Your task to perform on an android device: change the clock style Image 0: 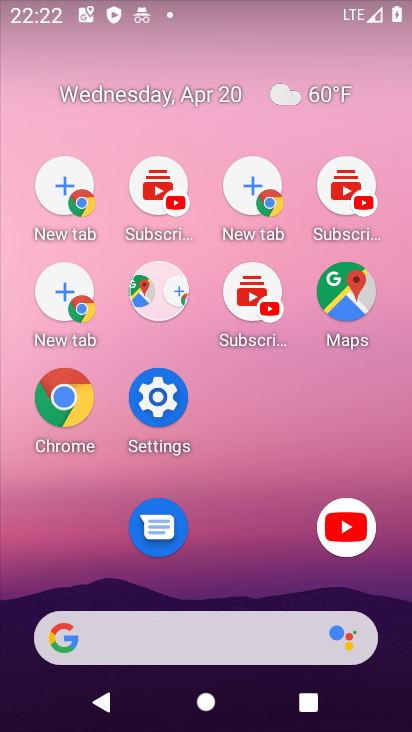
Step 0: click (280, 8)
Your task to perform on an android device: change the clock style Image 1: 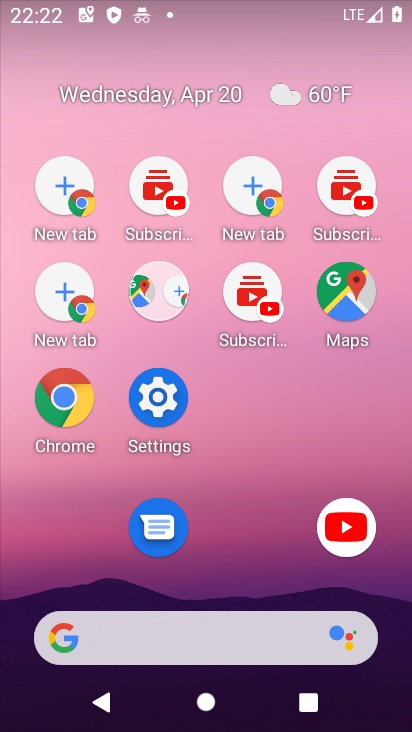
Step 1: drag from (224, 335) to (200, 90)
Your task to perform on an android device: change the clock style Image 2: 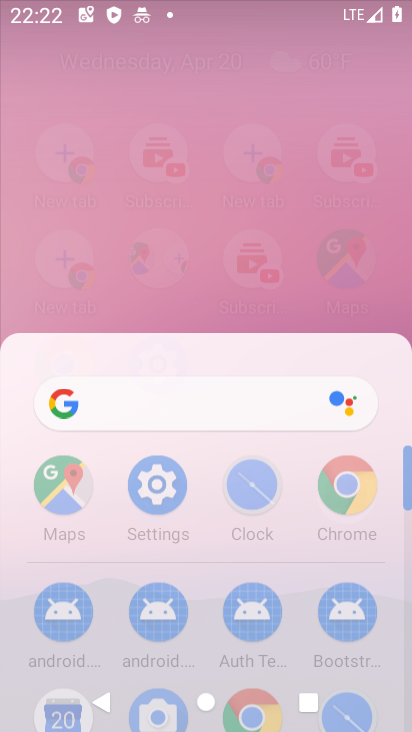
Step 2: drag from (283, 487) to (199, 87)
Your task to perform on an android device: change the clock style Image 3: 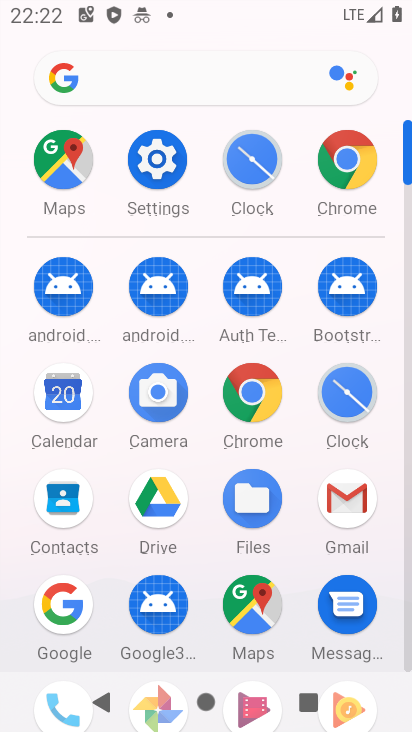
Step 3: click (247, 161)
Your task to perform on an android device: change the clock style Image 4: 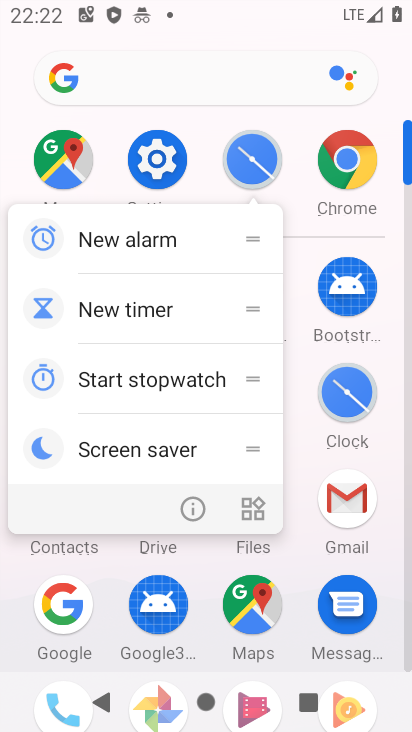
Step 4: click (247, 156)
Your task to perform on an android device: change the clock style Image 5: 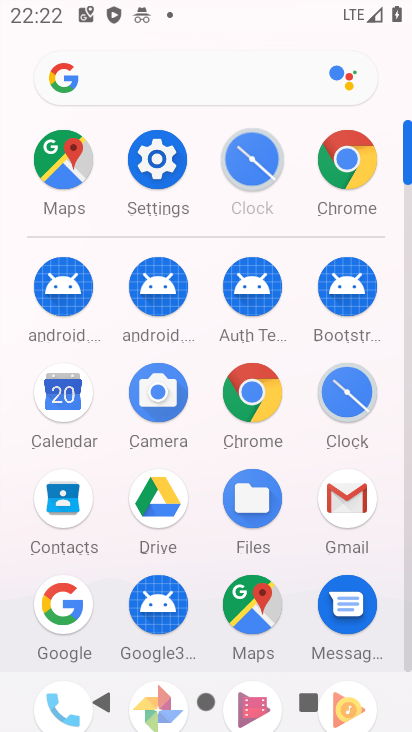
Step 5: click (247, 156)
Your task to perform on an android device: change the clock style Image 6: 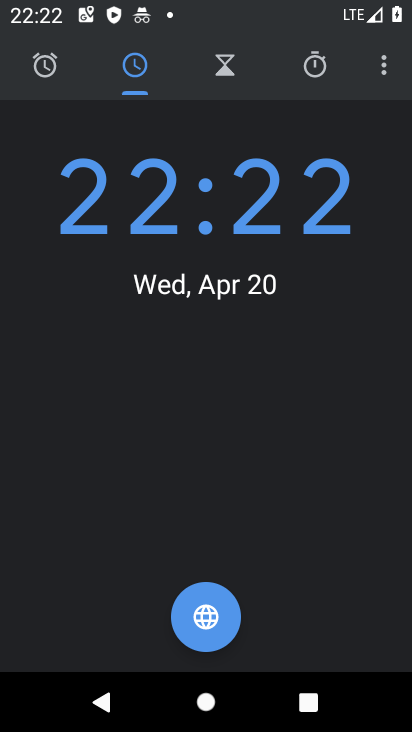
Step 6: click (247, 155)
Your task to perform on an android device: change the clock style Image 7: 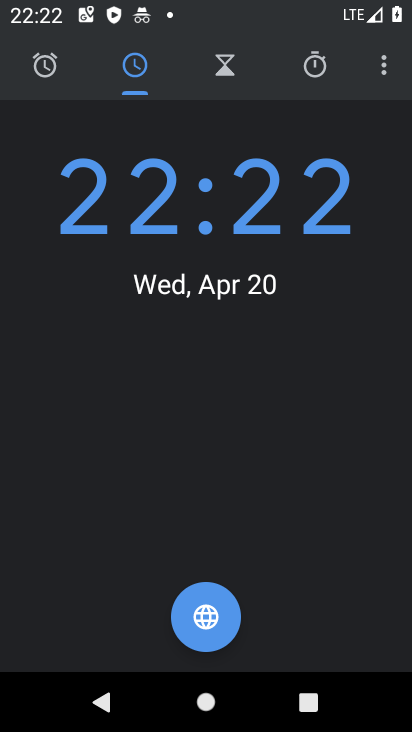
Step 7: click (247, 154)
Your task to perform on an android device: change the clock style Image 8: 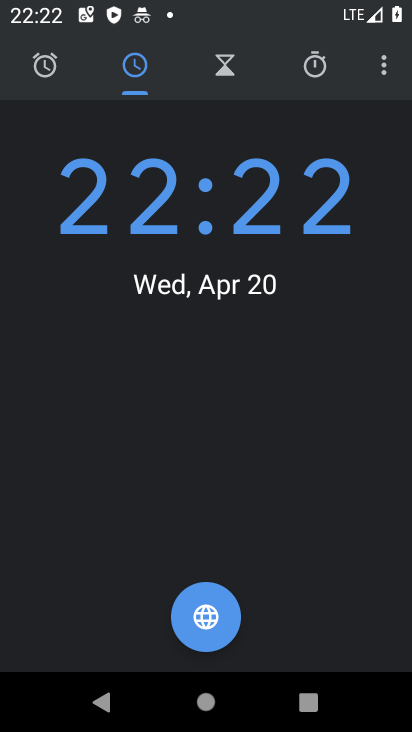
Step 8: click (381, 60)
Your task to perform on an android device: change the clock style Image 9: 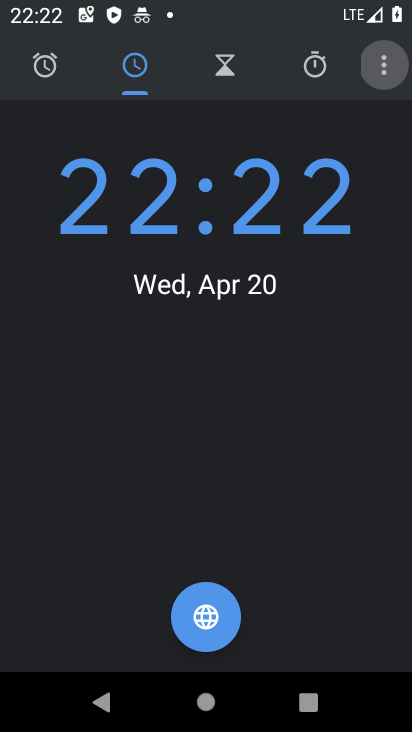
Step 9: click (382, 59)
Your task to perform on an android device: change the clock style Image 10: 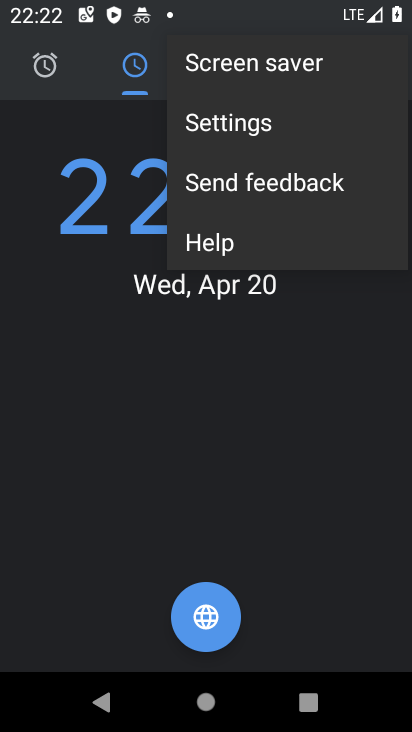
Step 10: click (382, 59)
Your task to perform on an android device: change the clock style Image 11: 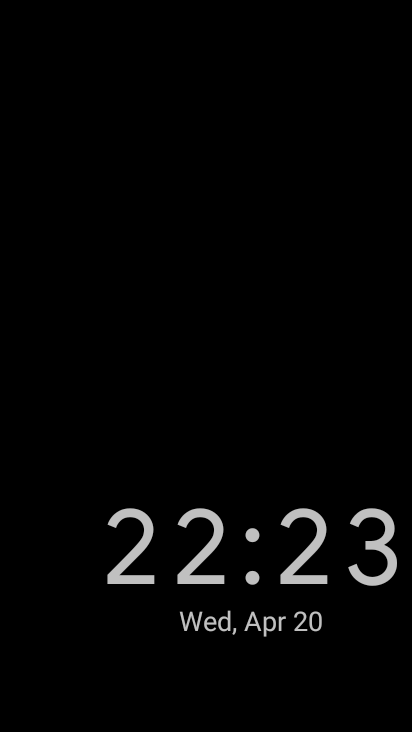
Step 11: press home button
Your task to perform on an android device: change the clock style Image 12: 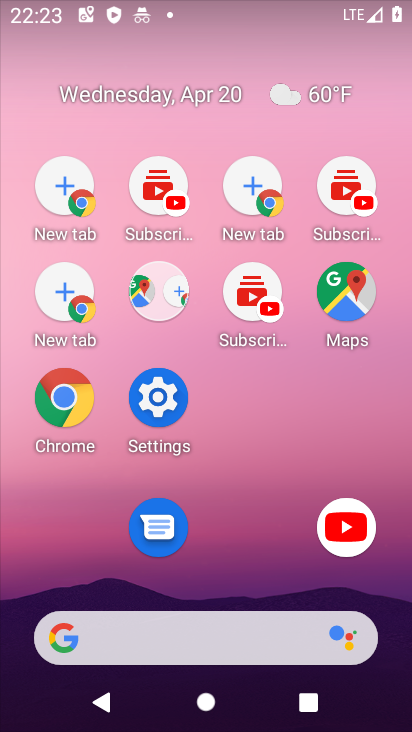
Step 12: drag from (253, 671) to (184, 36)
Your task to perform on an android device: change the clock style Image 13: 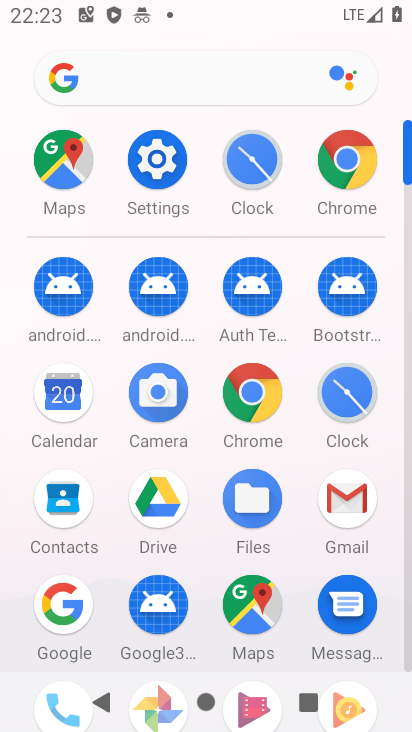
Step 13: drag from (268, 540) to (99, 105)
Your task to perform on an android device: change the clock style Image 14: 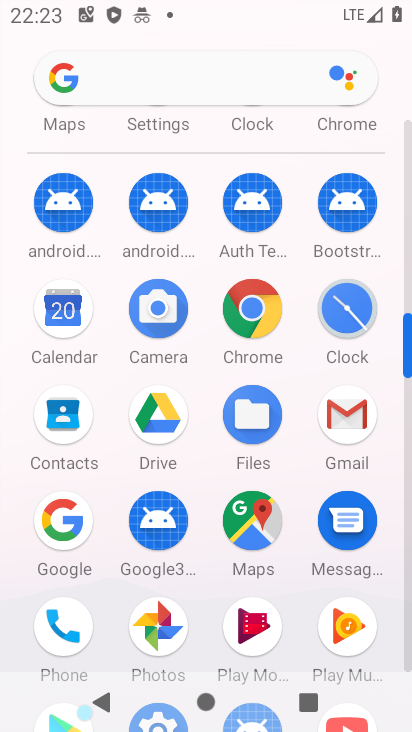
Step 14: click (255, 160)
Your task to perform on an android device: change the clock style Image 15: 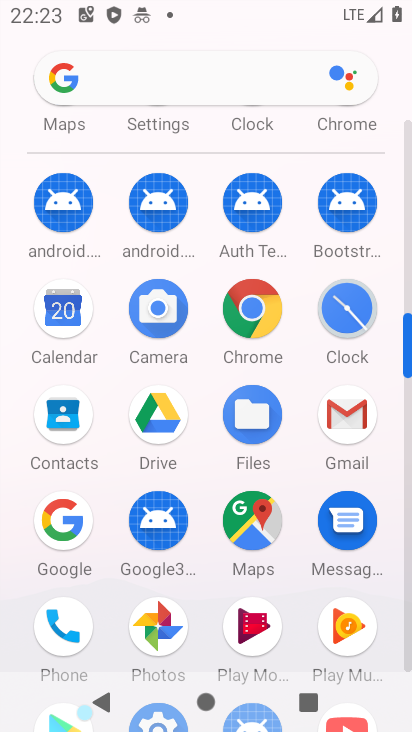
Step 15: click (350, 307)
Your task to perform on an android device: change the clock style Image 16: 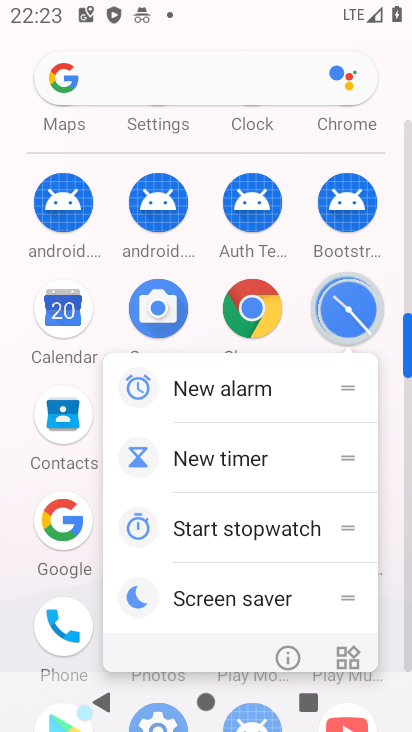
Step 16: click (353, 302)
Your task to perform on an android device: change the clock style Image 17: 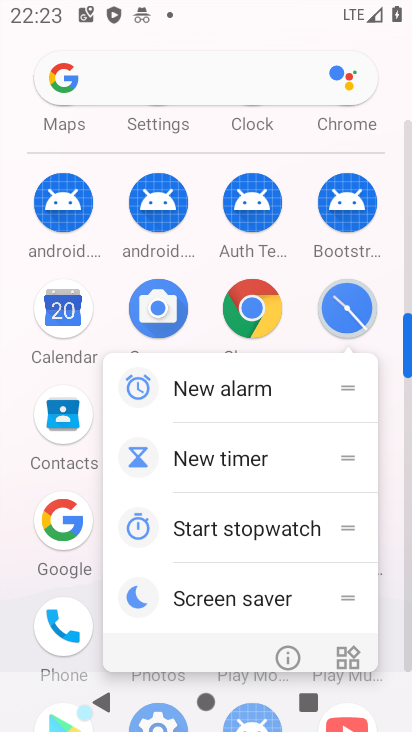
Step 17: click (347, 315)
Your task to perform on an android device: change the clock style Image 18: 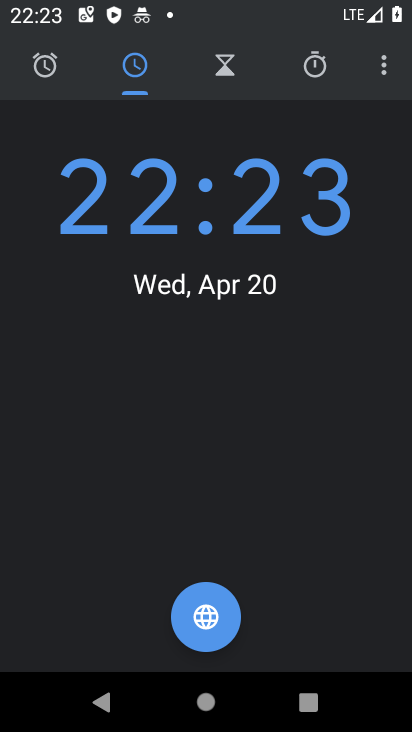
Step 18: click (382, 64)
Your task to perform on an android device: change the clock style Image 19: 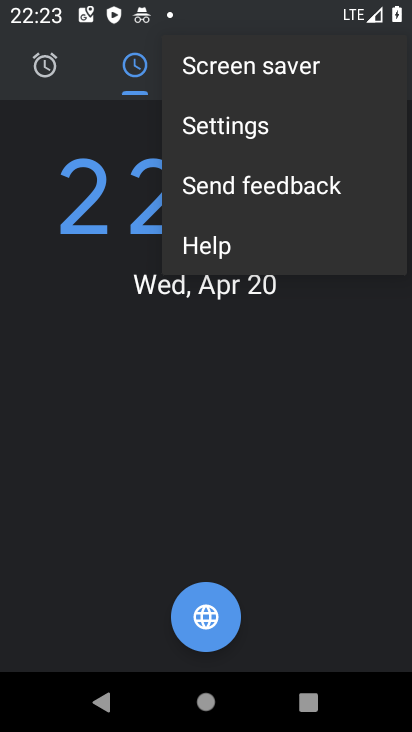
Step 19: click (230, 131)
Your task to perform on an android device: change the clock style Image 20: 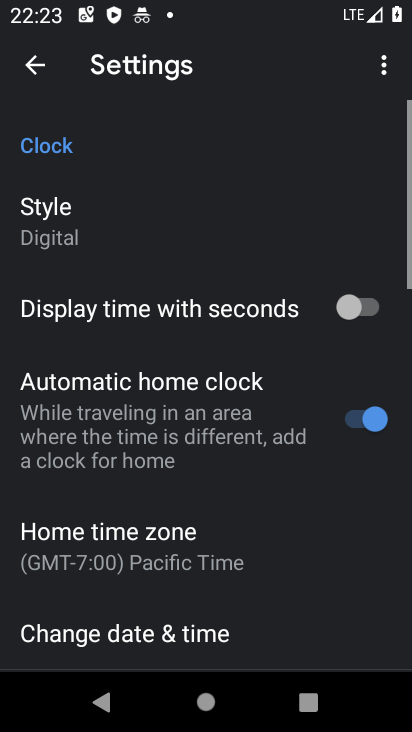
Step 20: click (243, 152)
Your task to perform on an android device: change the clock style Image 21: 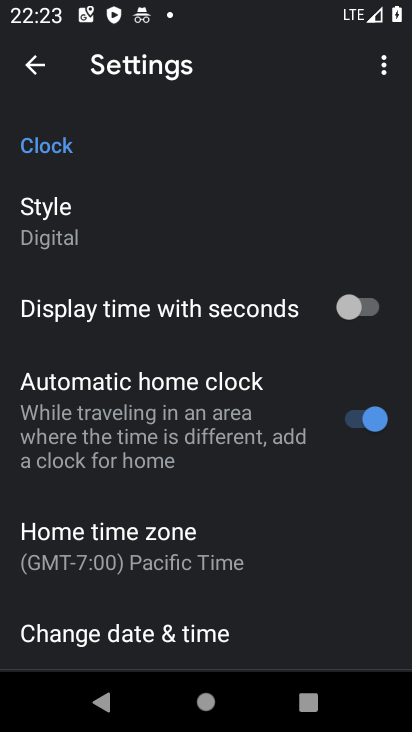
Step 21: click (90, 233)
Your task to perform on an android device: change the clock style Image 22: 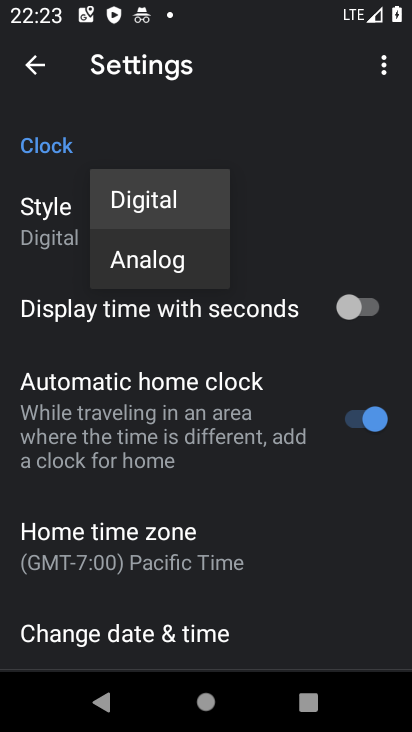
Step 22: click (148, 259)
Your task to perform on an android device: change the clock style Image 23: 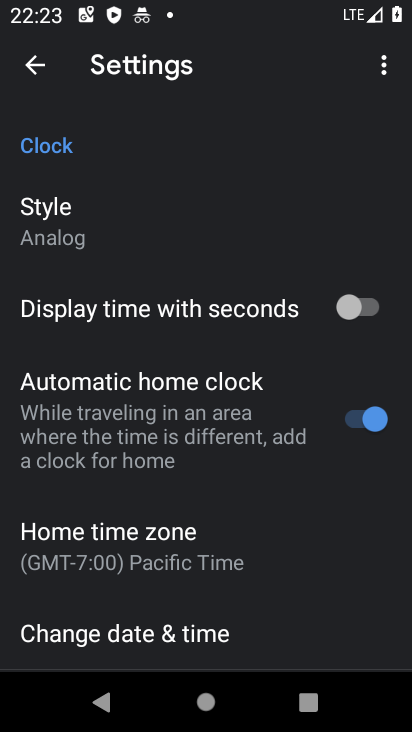
Step 23: task complete